Your task to perform on an android device: add a contact in the contacts app Image 0: 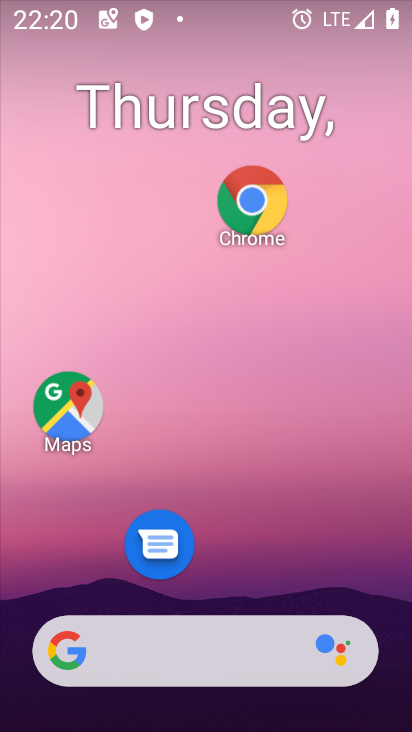
Step 0: drag from (274, 608) to (284, 84)
Your task to perform on an android device: add a contact in the contacts app Image 1: 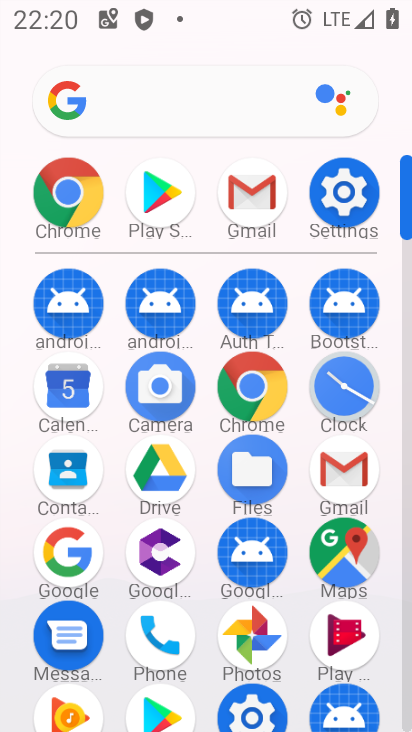
Step 1: click (53, 486)
Your task to perform on an android device: add a contact in the contacts app Image 2: 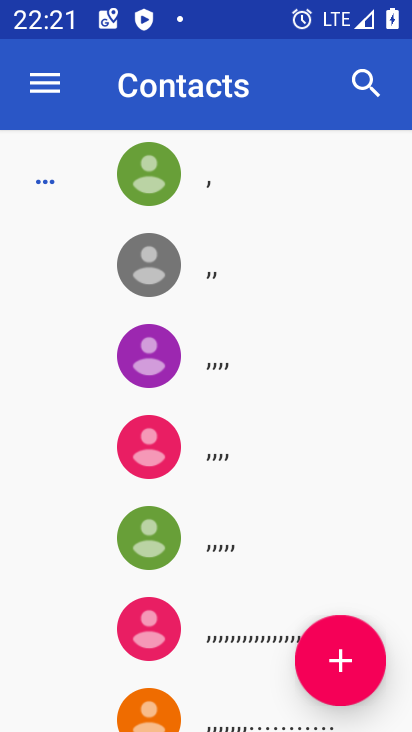
Step 2: click (360, 659)
Your task to perform on an android device: add a contact in the contacts app Image 3: 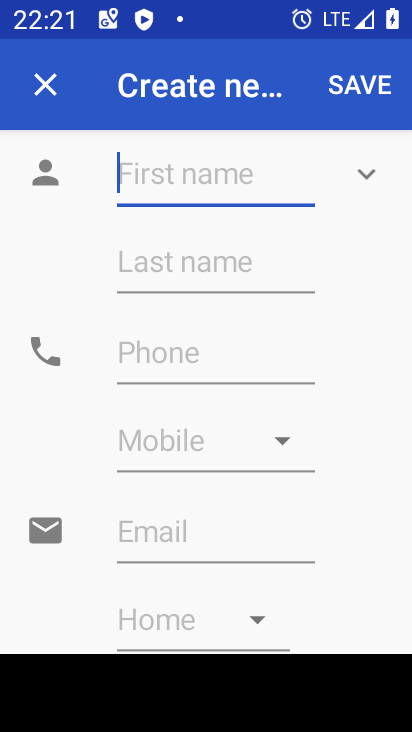
Step 3: type "shikar"
Your task to perform on an android device: add a contact in the contacts app Image 4: 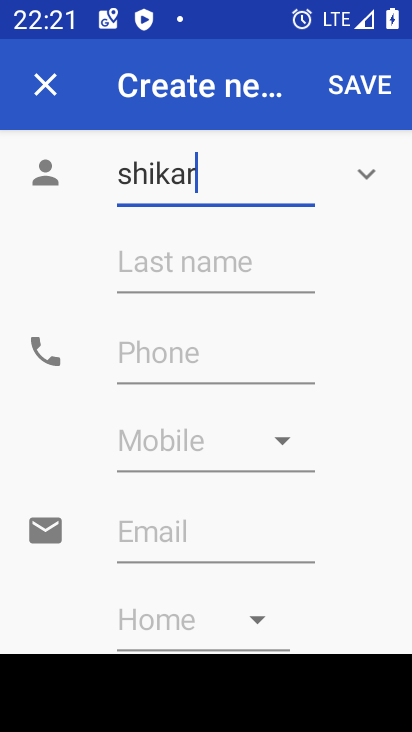
Step 4: click (224, 358)
Your task to perform on an android device: add a contact in the contacts app Image 5: 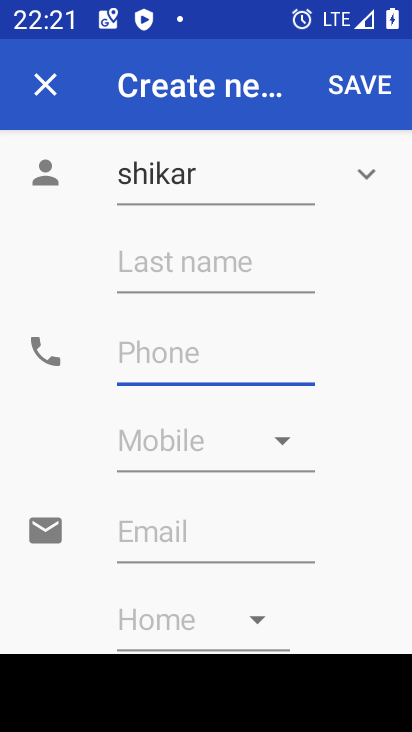
Step 5: type "876789876"
Your task to perform on an android device: add a contact in the contacts app Image 6: 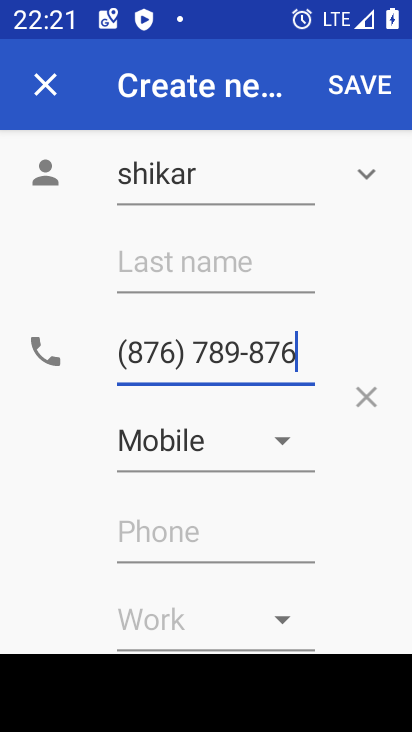
Step 6: click (390, 83)
Your task to perform on an android device: add a contact in the contacts app Image 7: 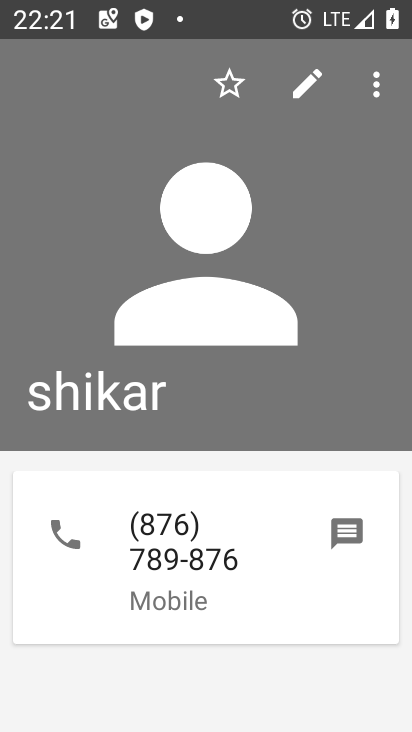
Step 7: task complete